Your task to perform on an android device: Look up the best rated drill on Lowes. Image 0: 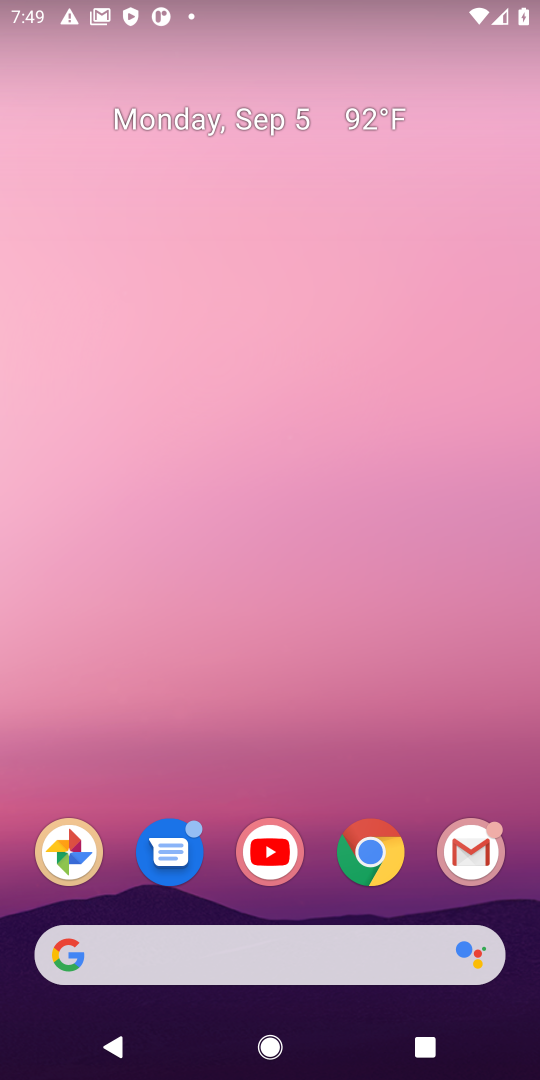
Step 0: click (358, 873)
Your task to perform on an android device: Look up the best rated drill on Lowes. Image 1: 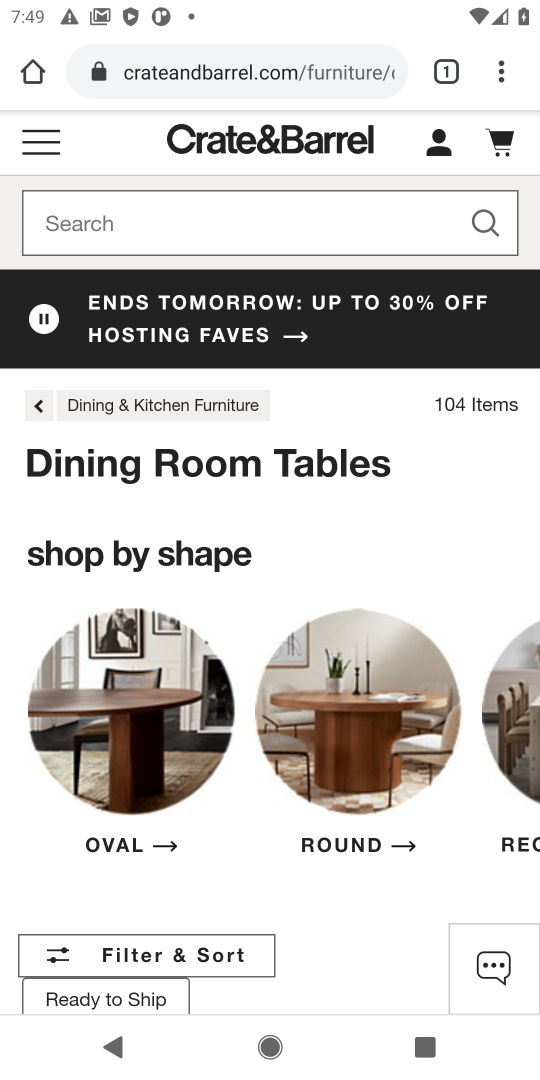
Step 1: click (271, 67)
Your task to perform on an android device: Look up the best rated drill on Lowes. Image 2: 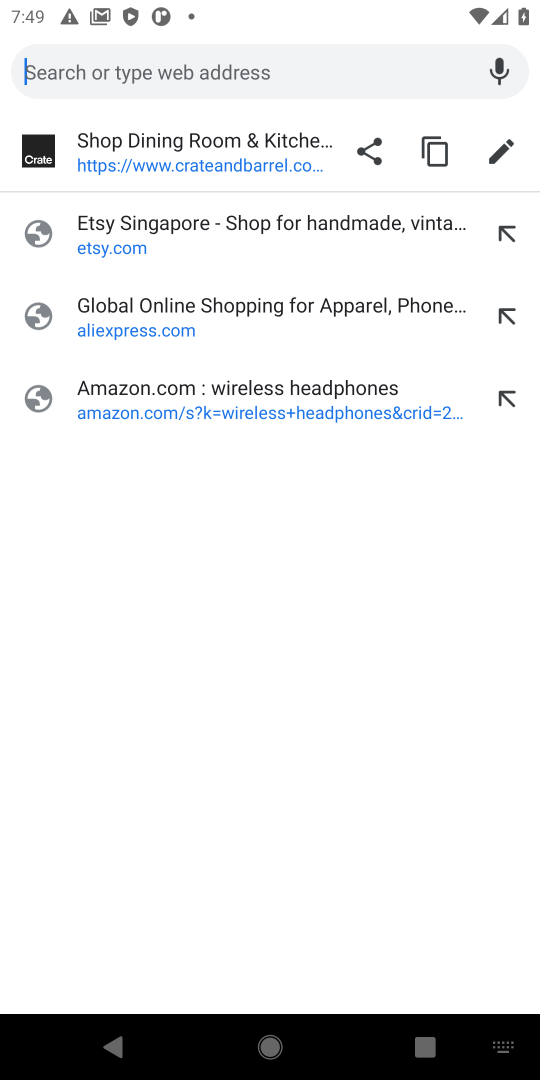
Step 2: type "lowes"
Your task to perform on an android device: Look up the best rated drill on Lowes. Image 3: 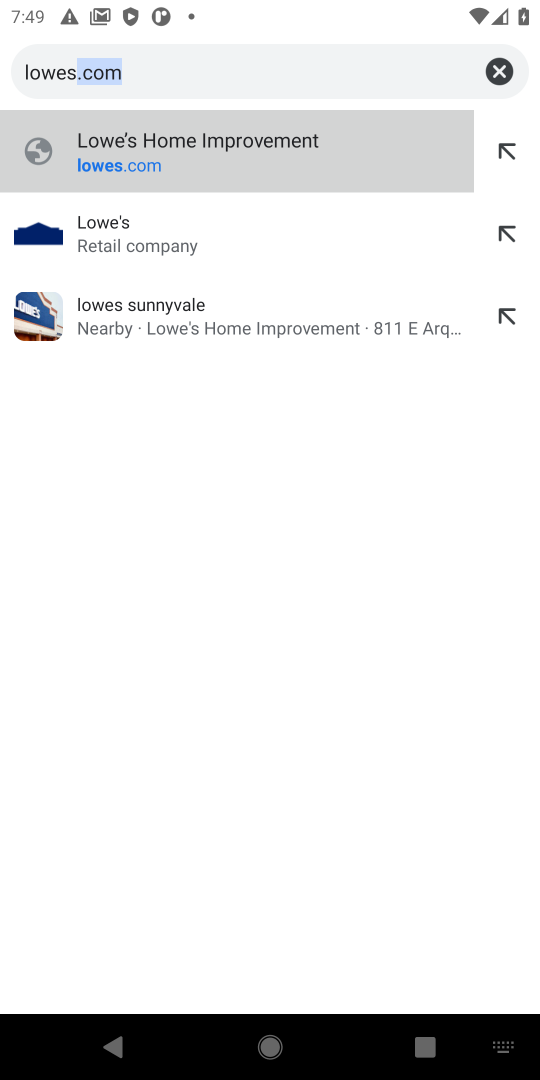
Step 3: press enter
Your task to perform on an android device: Look up the best rated drill on Lowes. Image 4: 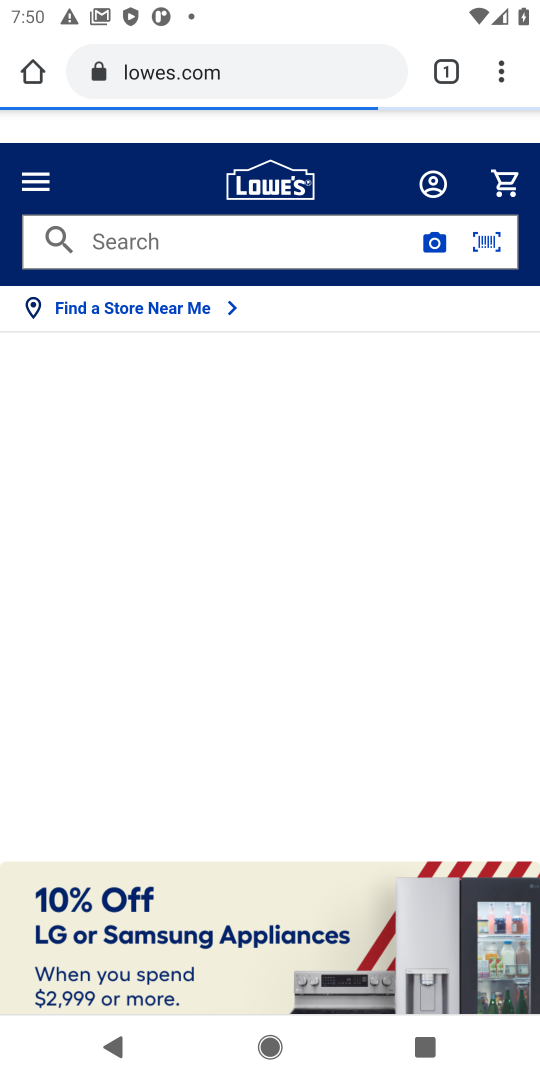
Step 4: click (196, 251)
Your task to perform on an android device: Look up the best rated drill on Lowes. Image 5: 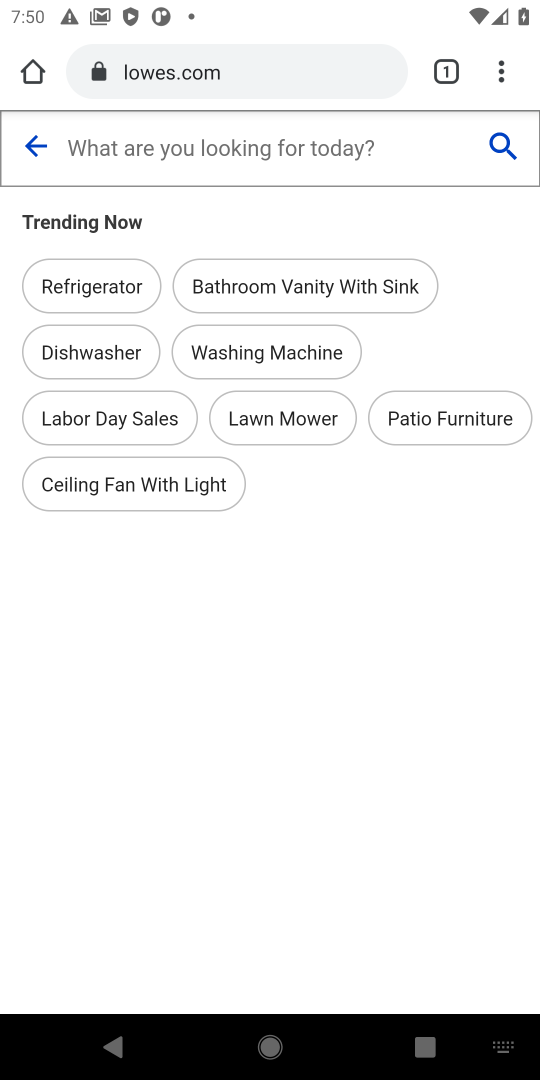
Step 5: type "drill"
Your task to perform on an android device: Look up the best rated drill on Lowes. Image 6: 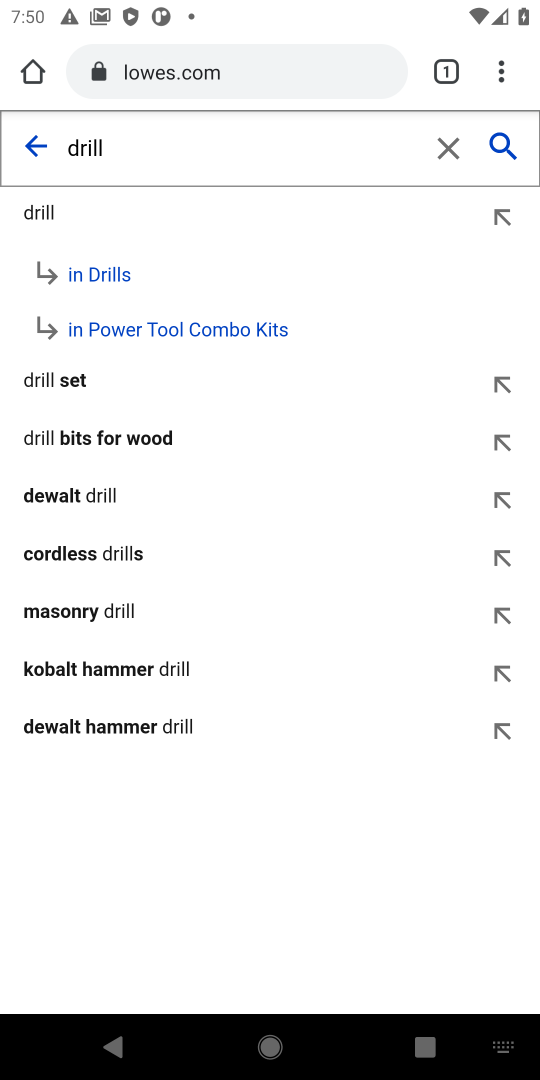
Step 6: press enter
Your task to perform on an android device: Look up the best rated drill on Lowes. Image 7: 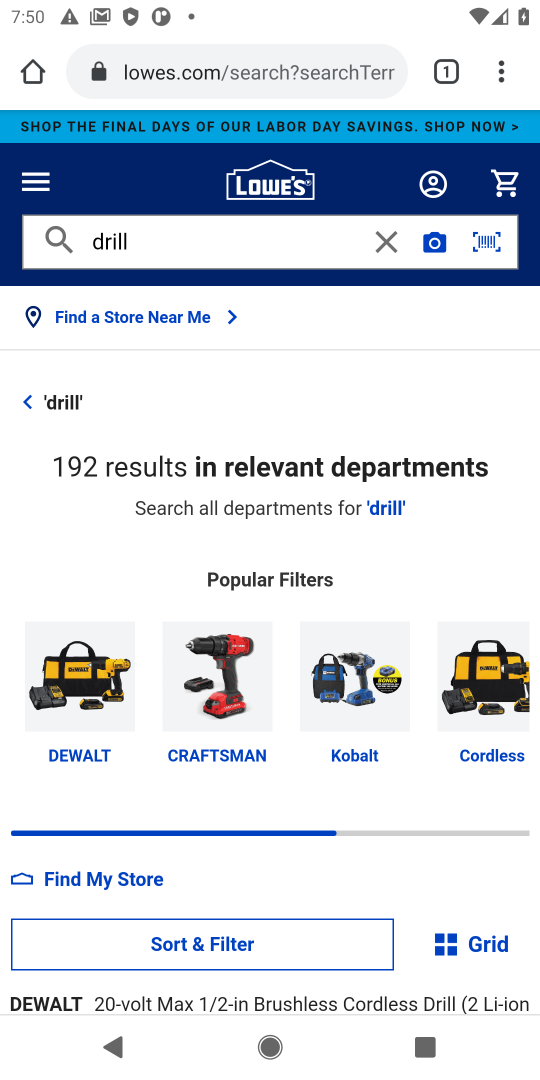
Step 7: drag from (285, 883) to (317, 505)
Your task to perform on an android device: Look up the best rated drill on Lowes. Image 8: 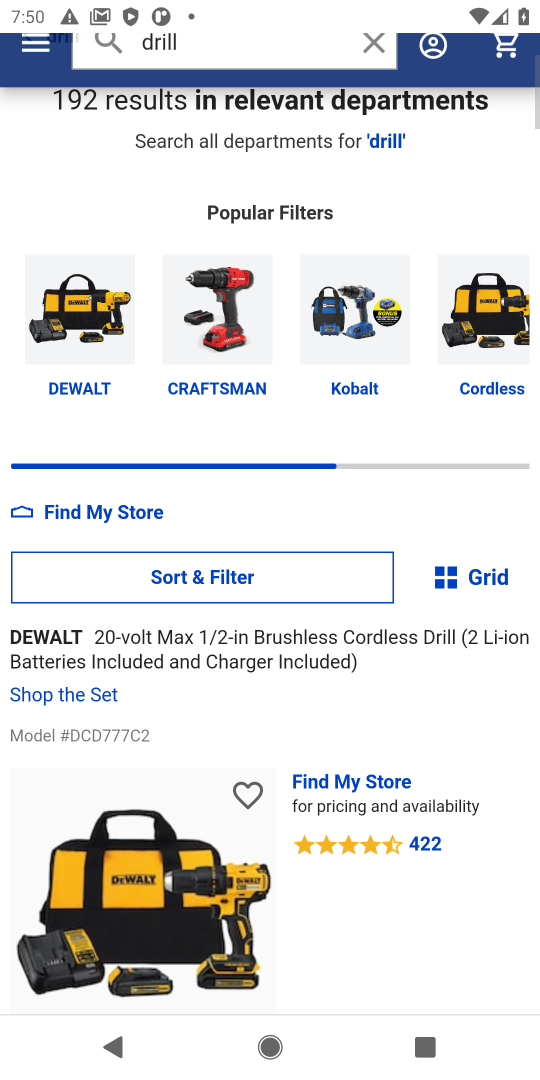
Step 8: click (222, 568)
Your task to perform on an android device: Look up the best rated drill on Lowes. Image 9: 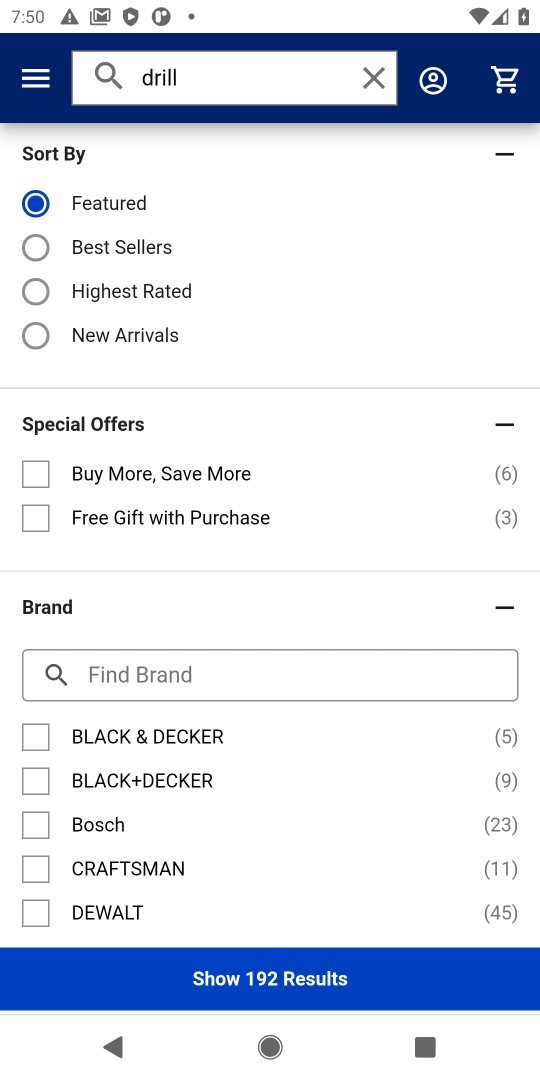
Step 9: click (108, 290)
Your task to perform on an android device: Look up the best rated drill on Lowes. Image 10: 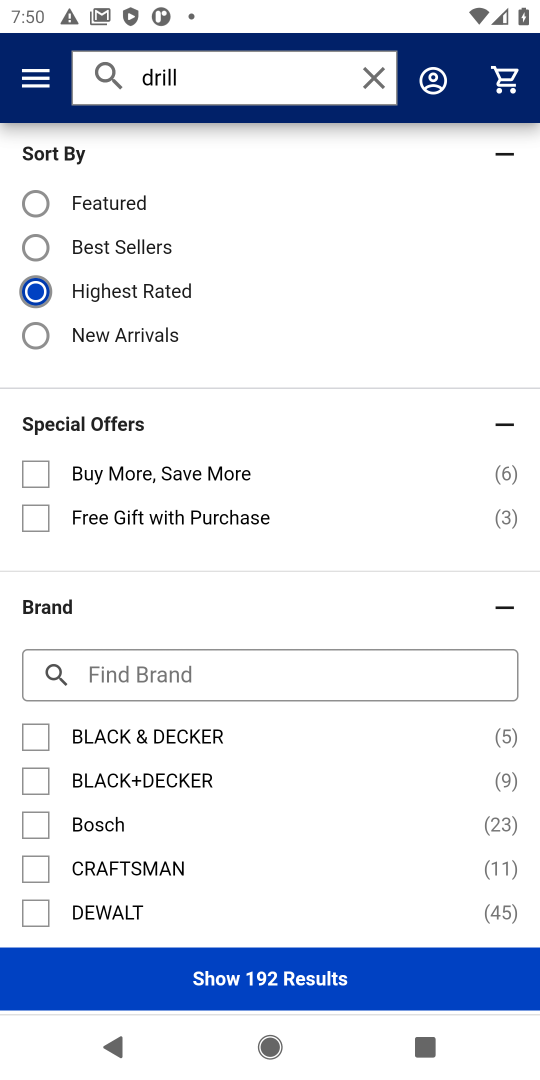
Step 10: click (328, 983)
Your task to perform on an android device: Look up the best rated drill on Lowes. Image 11: 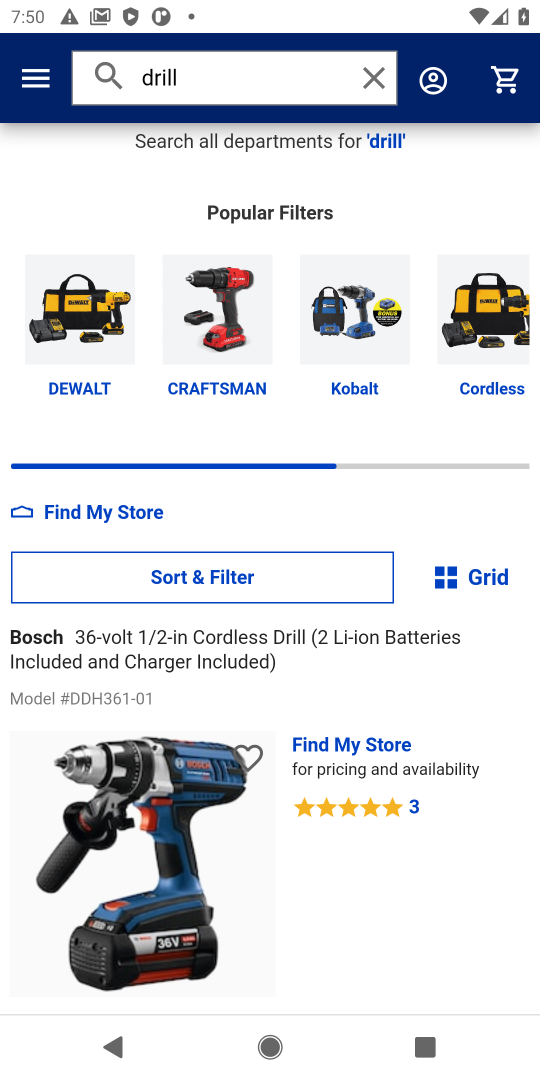
Step 11: drag from (342, 875) to (348, 579)
Your task to perform on an android device: Look up the best rated drill on Lowes. Image 12: 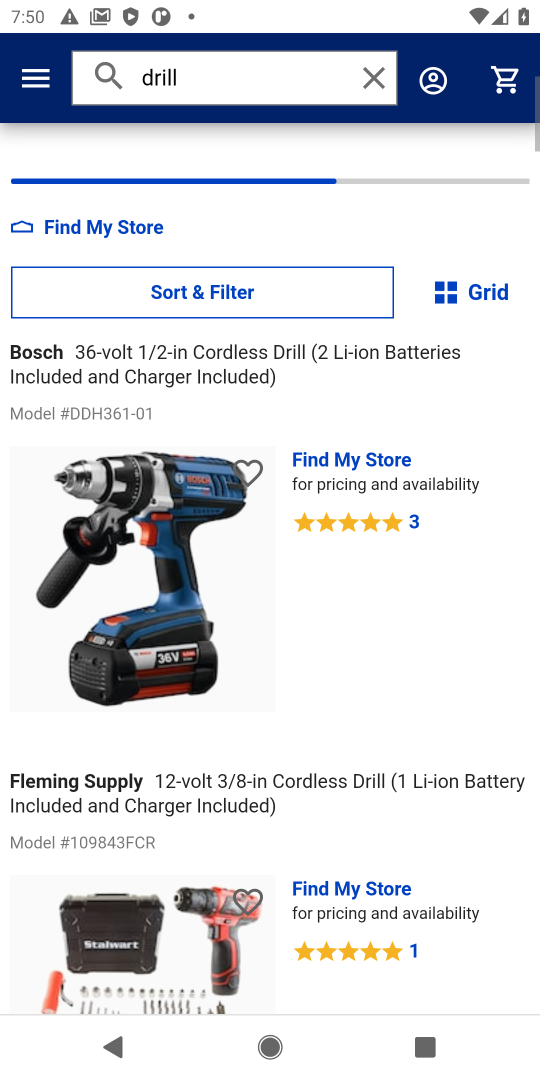
Step 12: drag from (382, 756) to (361, 568)
Your task to perform on an android device: Look up the best rated drill on Lowes. Image 13: 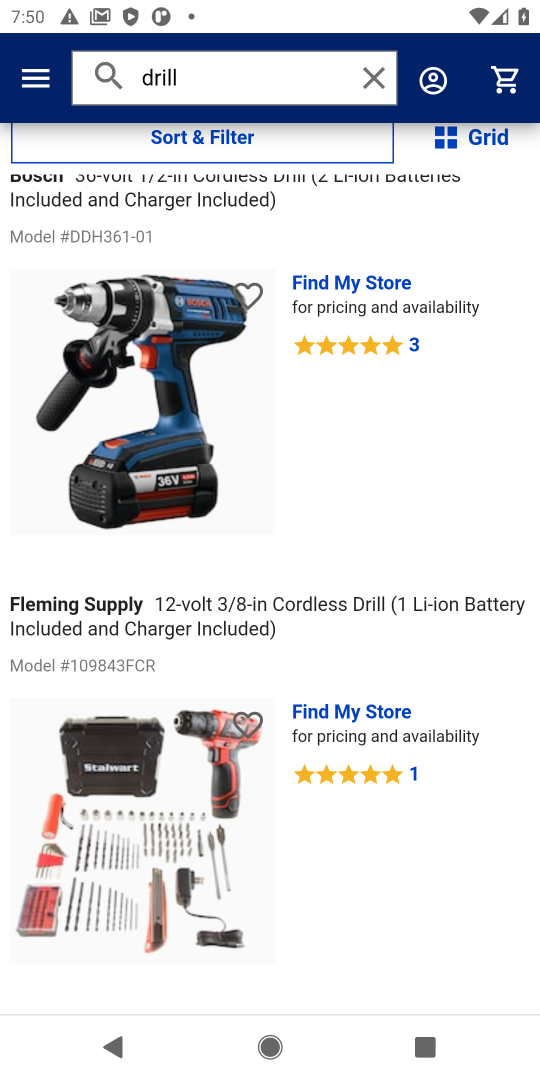
Step 13: drag from (359, 612) to (339, 406)
Your task to perform on an android device: Look up the best rated drill on Lowes. Image 14: 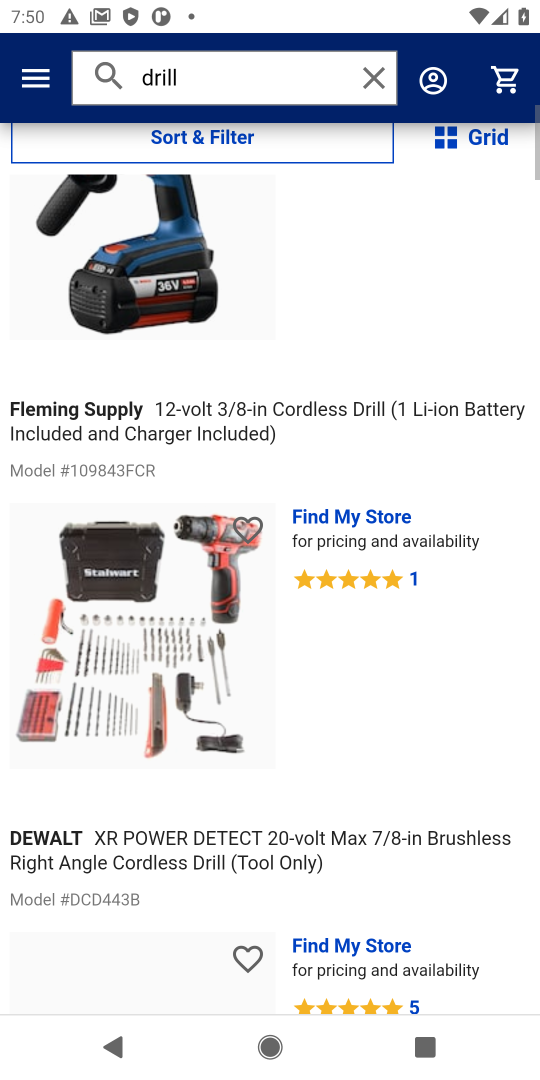
Step 14: drag from (377, 854) to (381, 563)
Your task to perform on an android device: Look up the best rated drill on Lowes. Image 15: 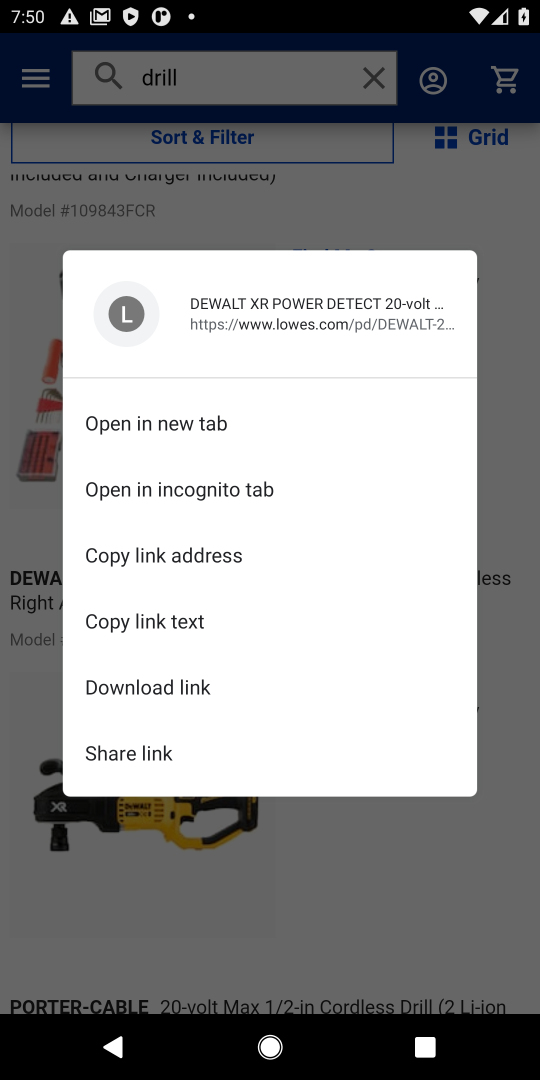
Step 15: click (340, 920)
Your task to perform on an android device: Look up the best rated drill on Lowes. Image 16: 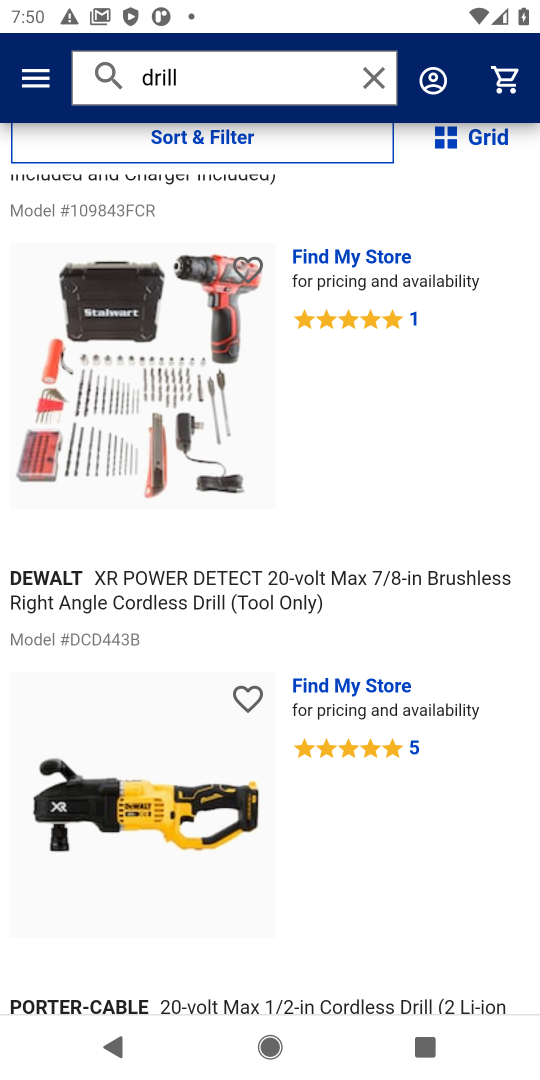
Step 16: task complete